Your task to perform on an android device: toggle pop-ups in chrome Image 0: 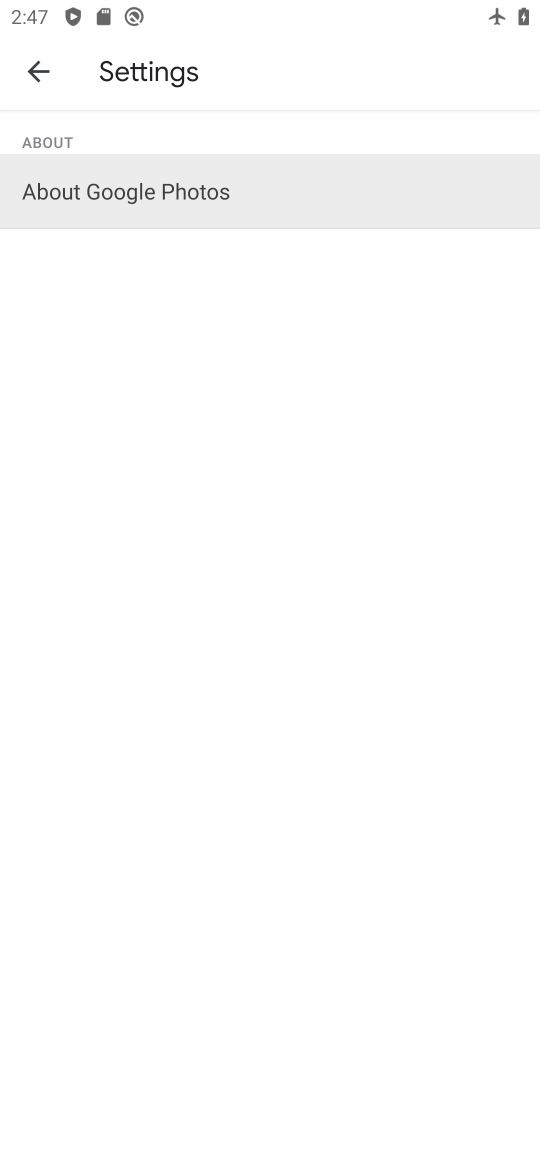
Step 0: press home button
Your task to perform on an android device: toggle pop-ups in chrome Image 1: 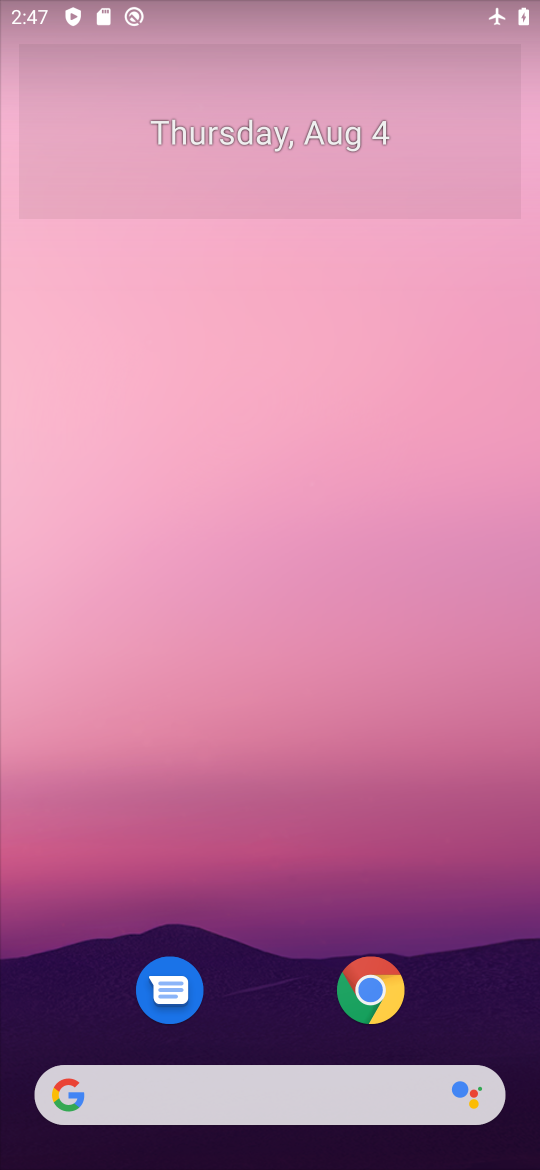
Step 1: click (356, 1010)
Your task to perform on an android device: toggle pop-ups in chrome Image 2: 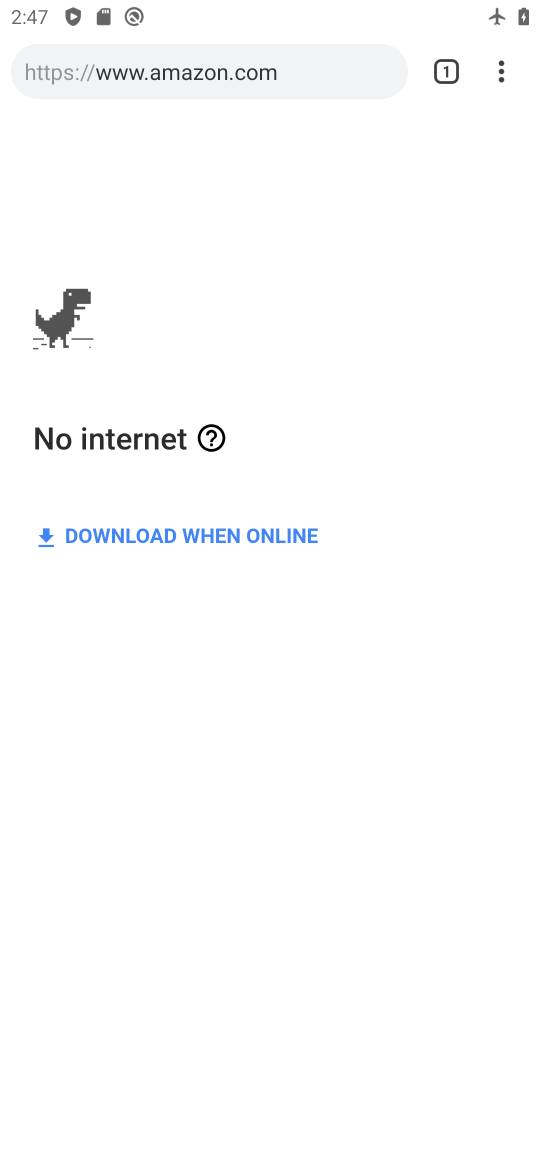
Step 2: task complete